Your task to perform on an android device: Search for the best websites on the internet Image 0: 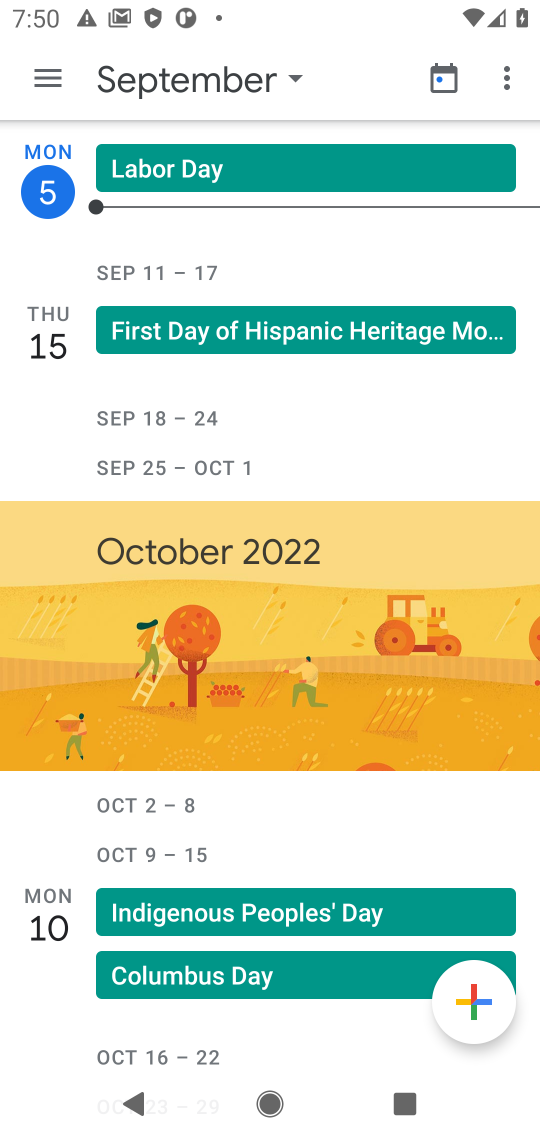
Step 0: press home button
Your task to perform on an android device: Search for the best websites on the internet Image 1: 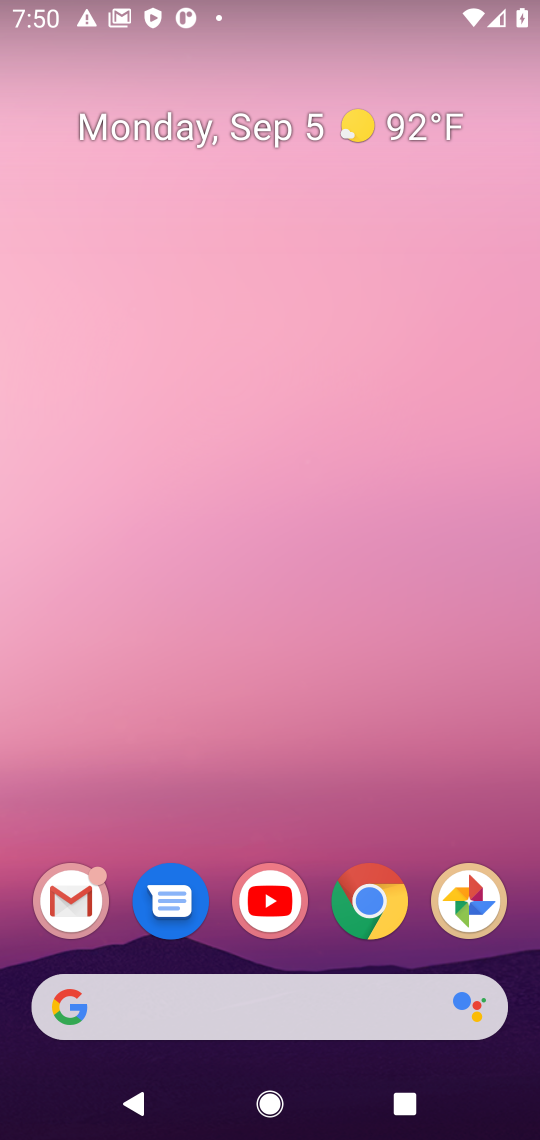
Step 1: click (370, 913)
Your task to perform on an android device: Search for the best websites on the internet Image 2: 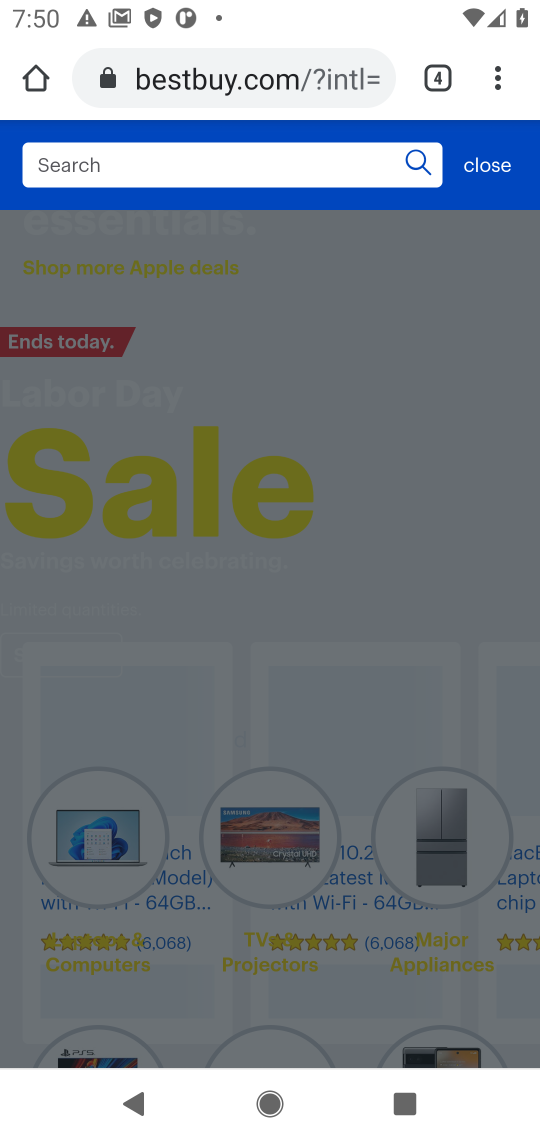
Step 2: click (278, 86)
Your task to perform on an android device: Search for the best websites on the internet Image 3: 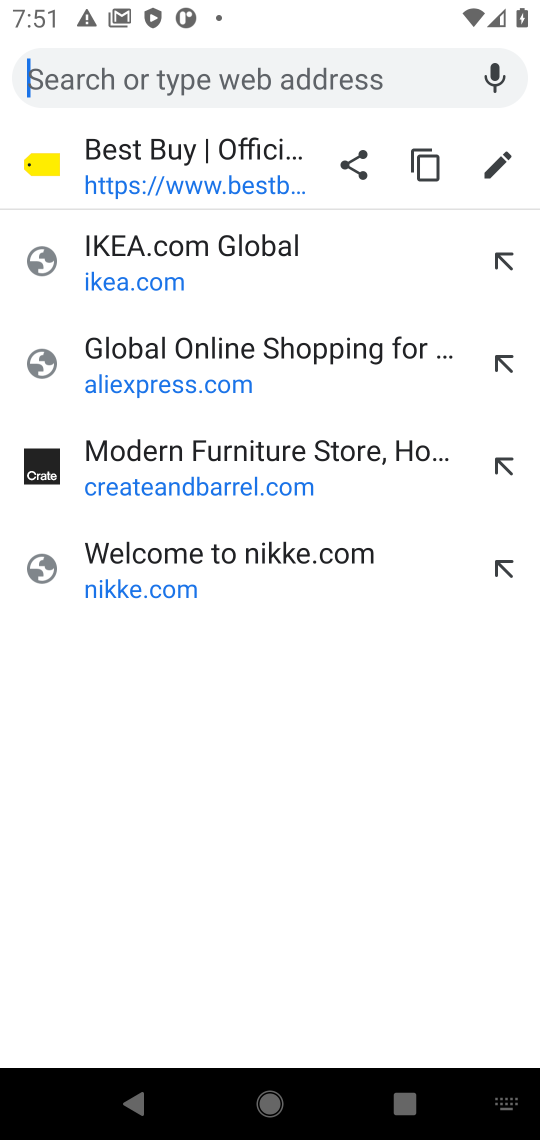
Step 3: type "best website"
Your task to perform on an android device: Search for the best websites on the internet Image 4: 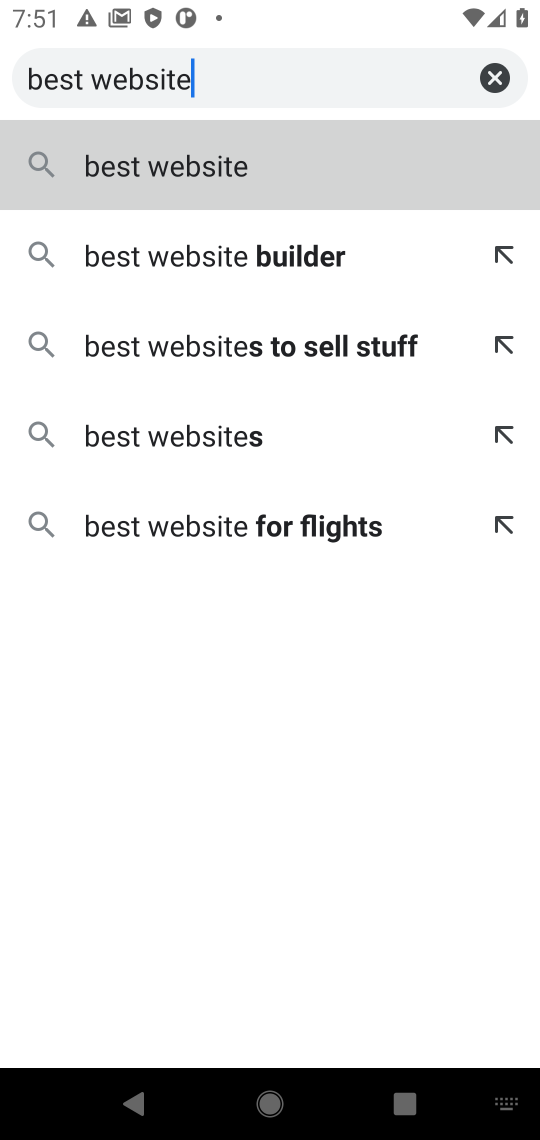
Step 4: click (208, 201)
Your task to perform on an android device: Search for the best websites on the internet Image 5: 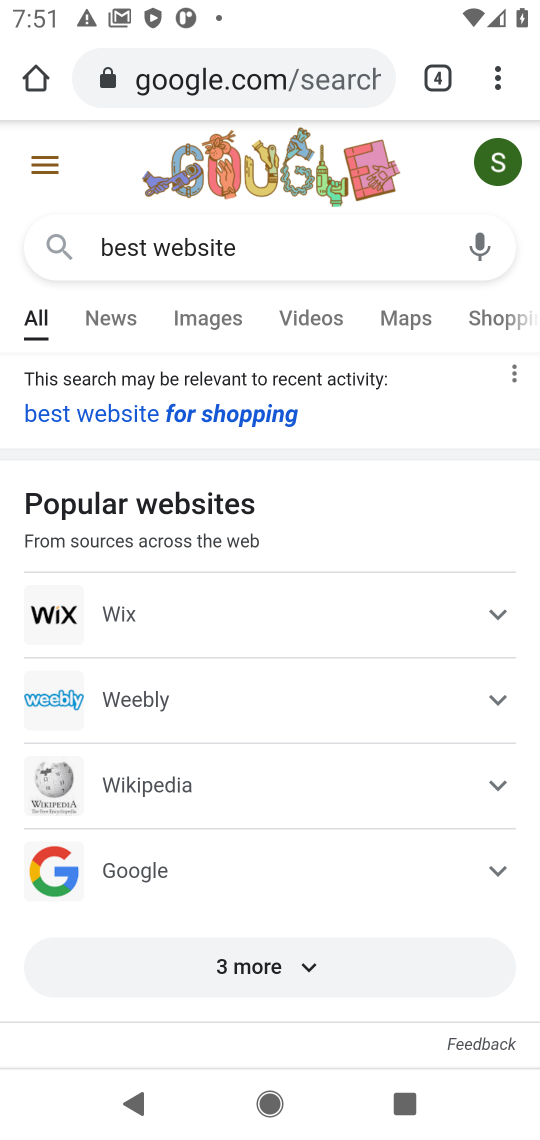
Step 5: task complete